Your task to perform on an android device: Go to sound settings Image 0: 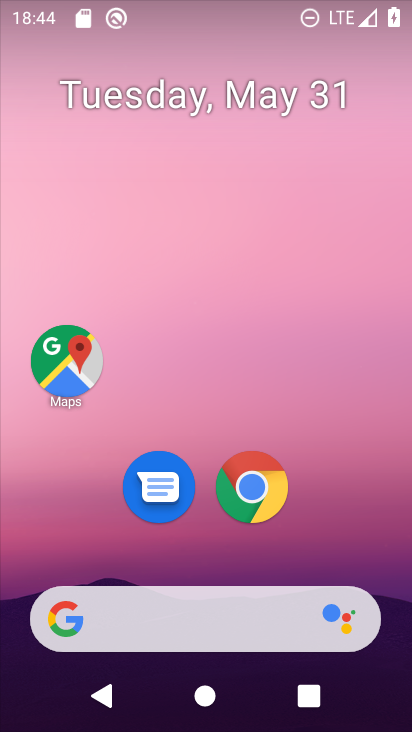
Step 0: drag from (344, 527) to (240, 142)
Your task to perform on an android device: Go to sound settings Image 1: 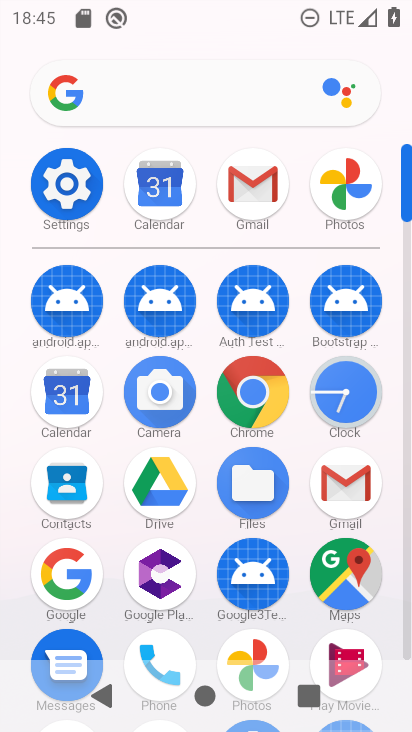
Step 1: click (62, 179)
Your task to perform on an android device: Go to sound settings Image 2: 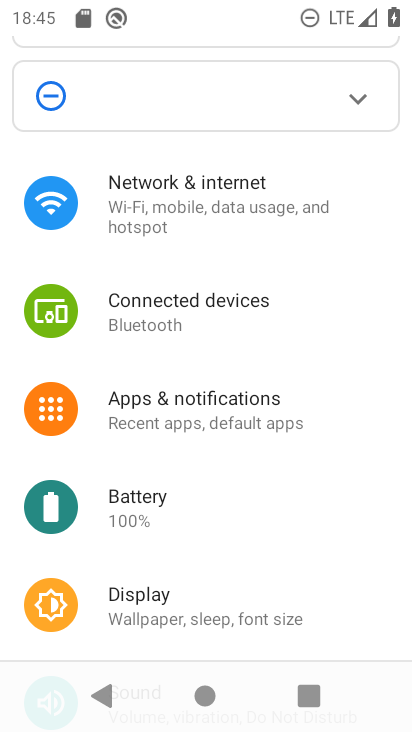
Step 2: drag from (216, 517) to (171, 228)
Your task to perform on an android device: Go to sound settings Image 3: 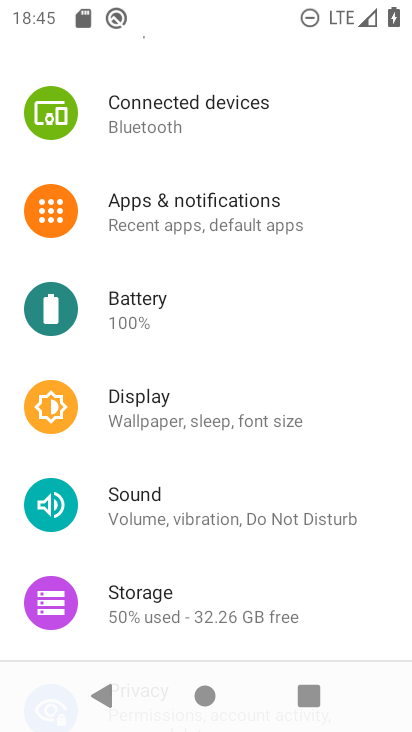
Step 3: click (133, 499)
Your task to perform on an android device: Go to sound settings Image 4: 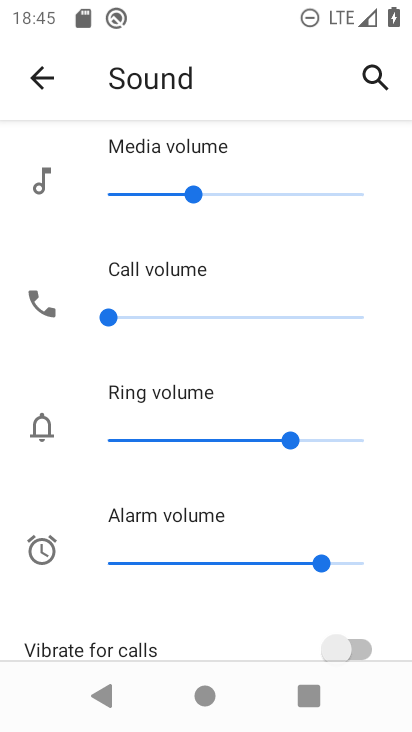
Step 4: task complete